Your task to perform on an android device: Go to network settings Image 0: 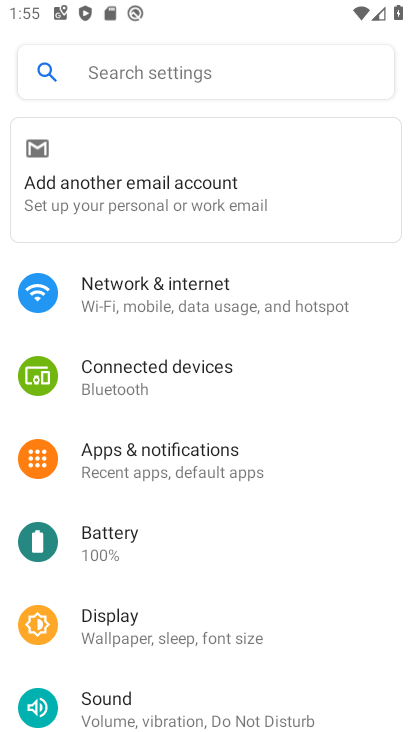
Step 0: drag from (214, 609) to (188, 287)
Your task to perform on an android device: Go to network settings Image 1: 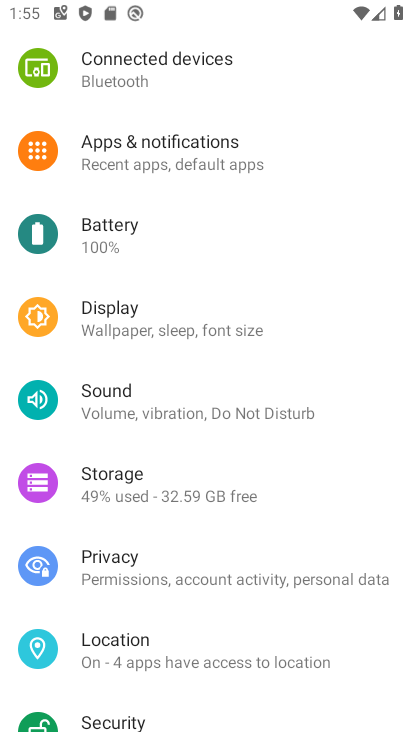
Step 1: drag from (202, 311) to (213, 609)
Your task to perform on an android device: Go to network settings Image 2: 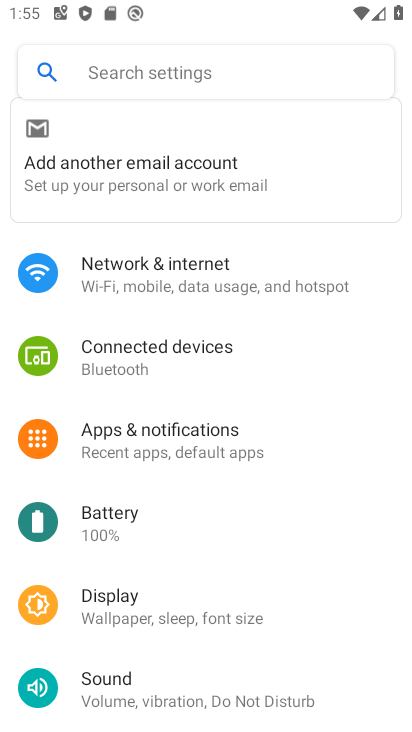
Step 2: click (159, 263)
Your task to perform on an android device: Go to network settings Image 3: 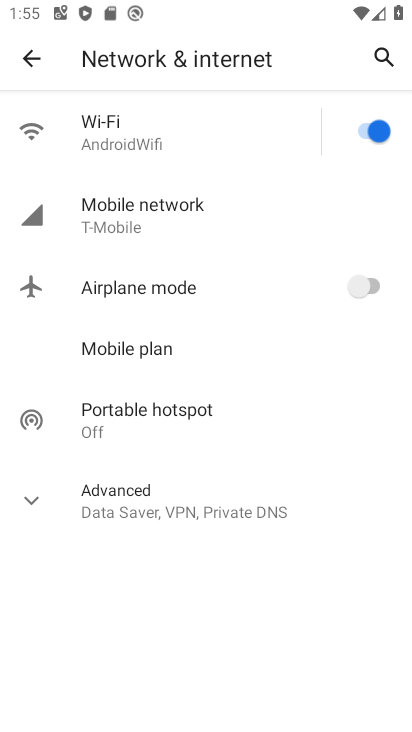
Step 3: task complete